Your task to perform on an android device: Search for sushi restaurants on Maps Image 0: 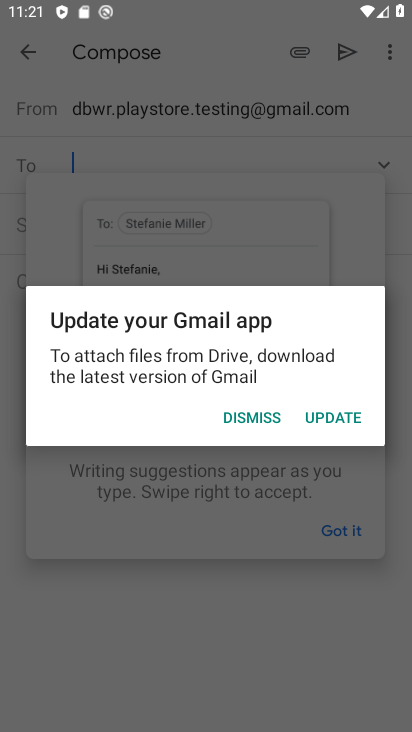
Step 0: press home button
Your task to perform on an android device: Search for sushi restaurants on Maps Image 1: 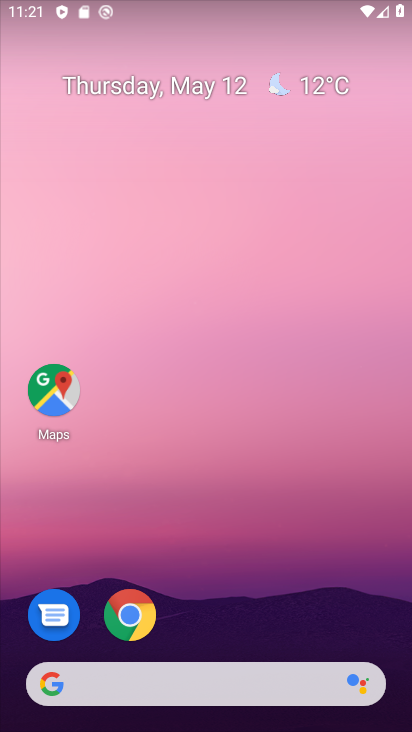
Step 1: click (63, 402)
Your task to perform on an android device: Search for sushi restaurants on Maps Image 2: 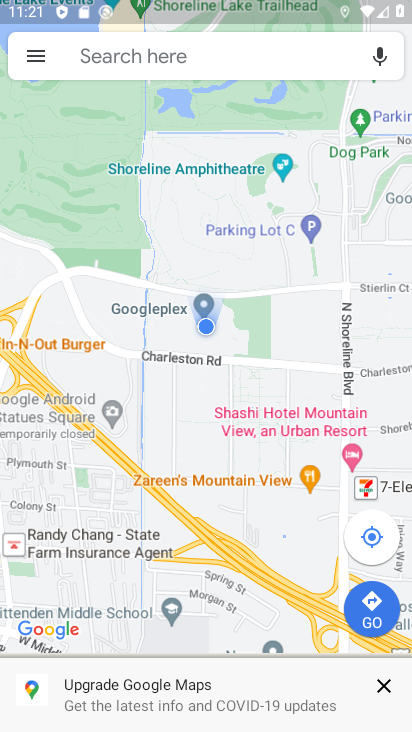
Step 2: click (166, 53)
Your task to perform on an android device: Search for sushi restaurants on Maps Image 3: 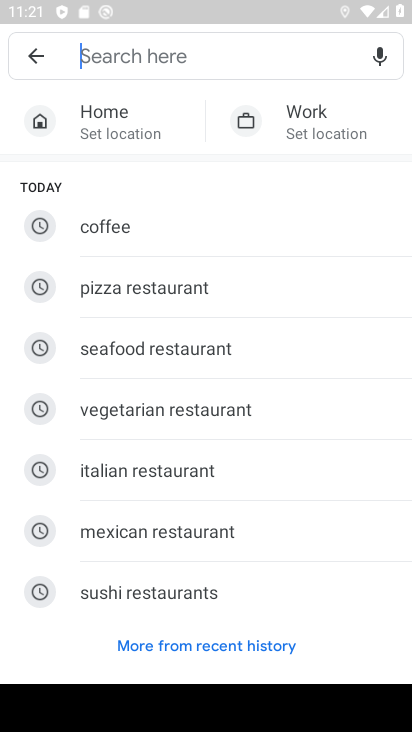
Step 3: type "sushi restaurants"
Your task to perform on an android device: Search for sushi restaurants on Maps Image 4: 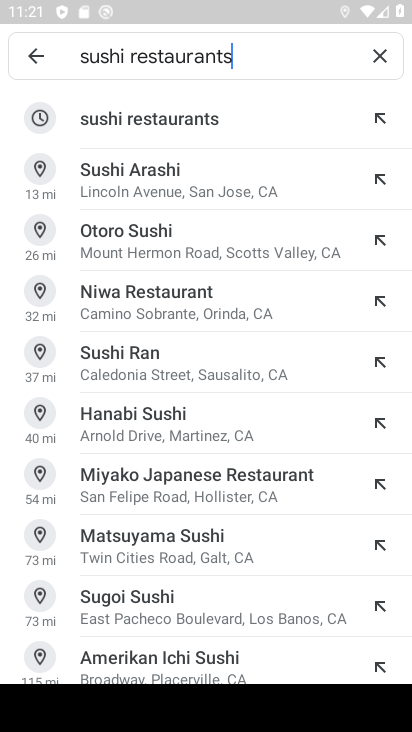
Step 4: click (202, 113)
Your task to perform on an android device: Search for sushi restaurants on Maps Image 5: 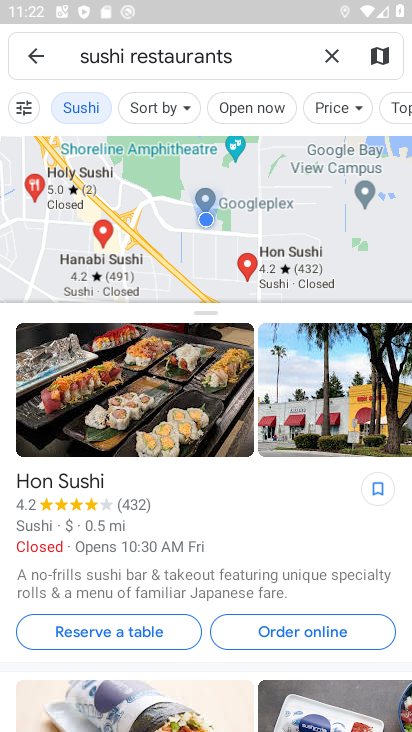
Step 5: task complete